Your task to perform on an android device: visit the assistant section in the google photos Image 0: 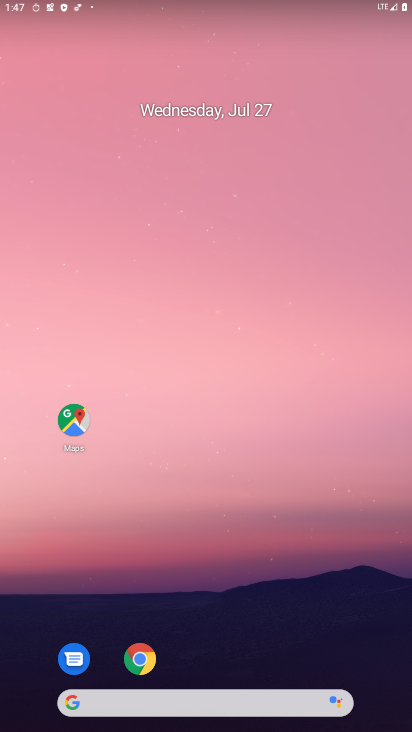
Step 0: drag from (282, 660) to (384, 64)
Your task to perform on an android device: visit the assistant section in the google photos Image 1: 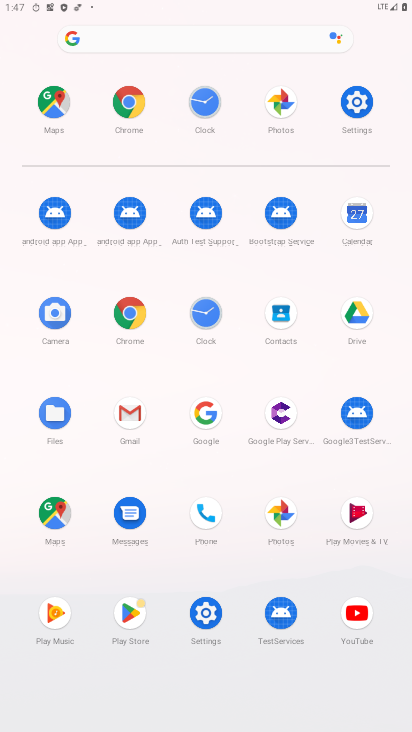
Step 1: click (276, 506)
Your task to perform on an android device: visit the assistant section in the google photos Image 2: 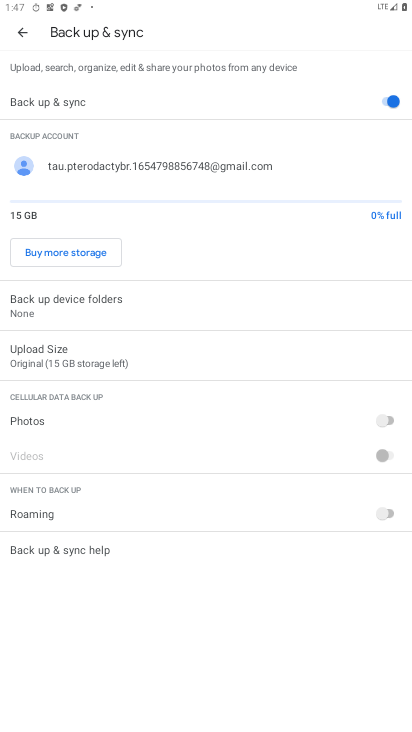
Step 2: click (15, 27)
Your task to perform on an android device: visit the assistant section in the google photos Image 3: 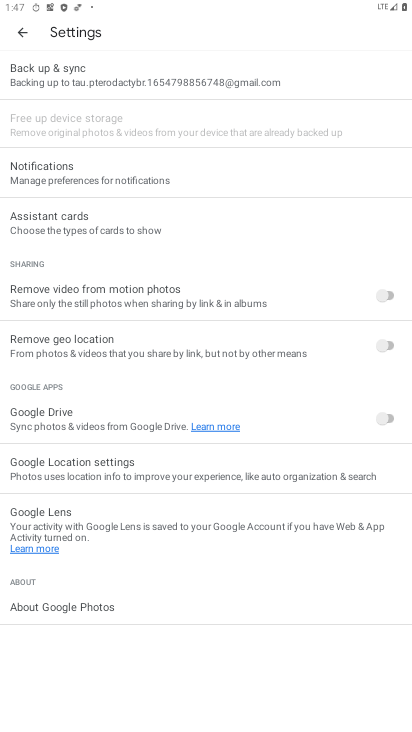
Step 3: click (18, 25)
Your task to perform on an android device: visit the assistant section in the google photos Image 4: 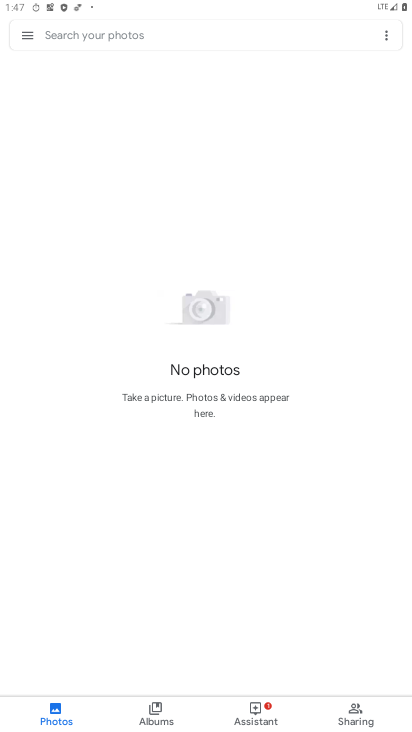
Step 4: click (246, 712)
Your task to perform on an android device: visit the assistant section in the google photos Image 5: 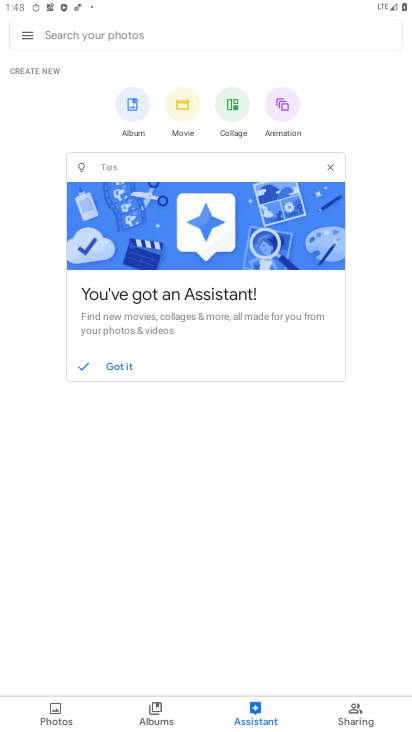
Step 5: task complete